Your task to perform on an android device: Open Google Image 0: 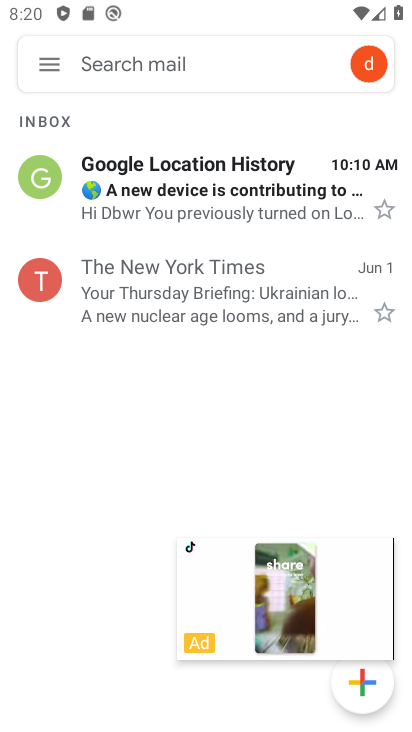
Step 0: press home button
Your task to perform on an android device: Open Google Image 1: 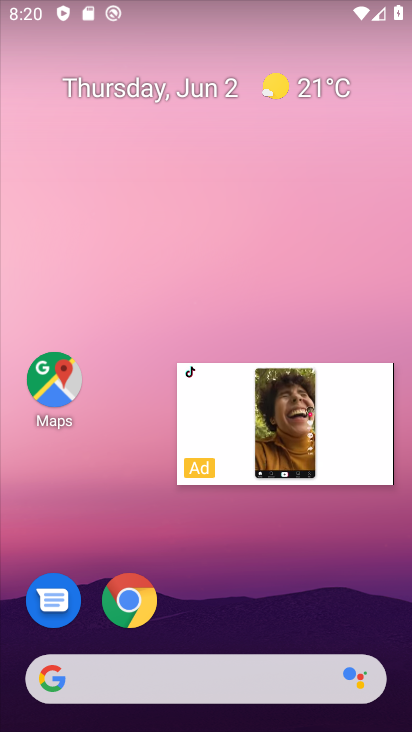
Step 1: click (352, 376)
Your task to perform on an android device: Open Google Image 2: 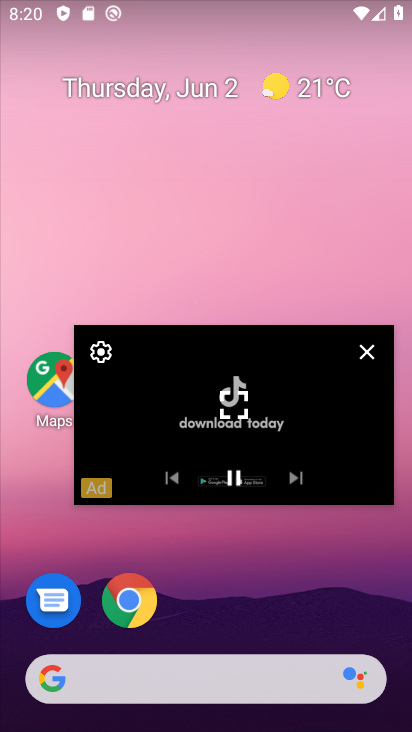
Step 2: click (362, 356)
Your task to perform on an android device: Open Google Image 3: 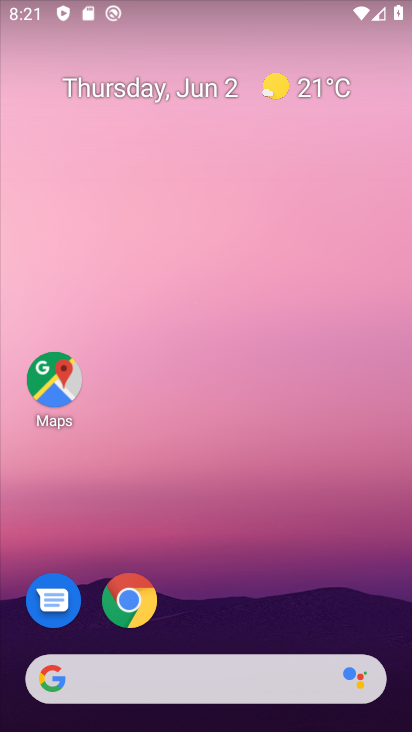
Step 3: drag from (196, 638) to (184, 246)
Your task to perform on an android device: Open Google Image 4: 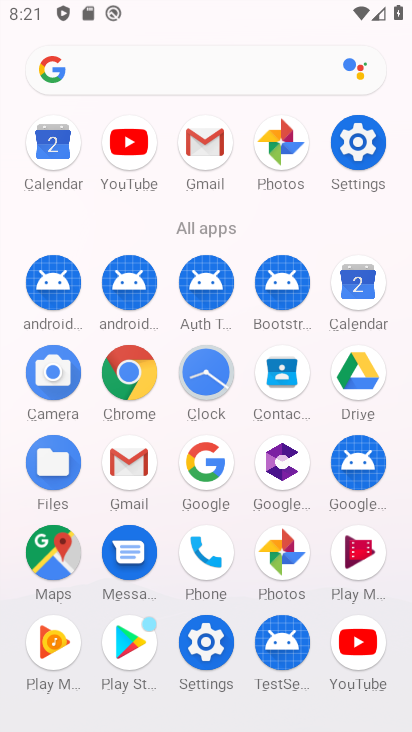
Step 4: click (210, 472)
Your task to perform on an android device: Open Google Image 5: 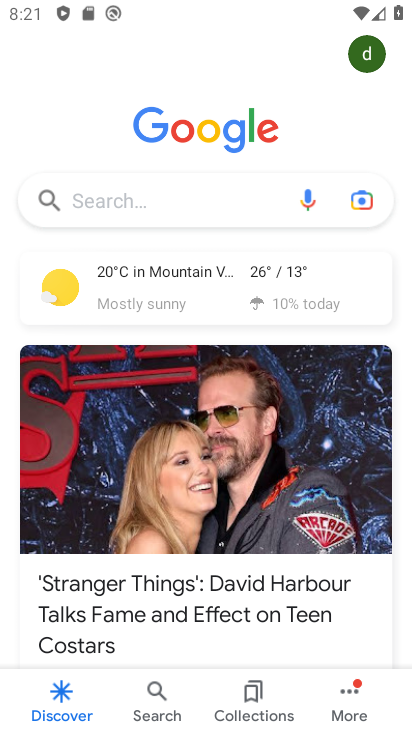
Step 5: task complete